Your task to perform on an android device: empty trash in google photos Image 0: 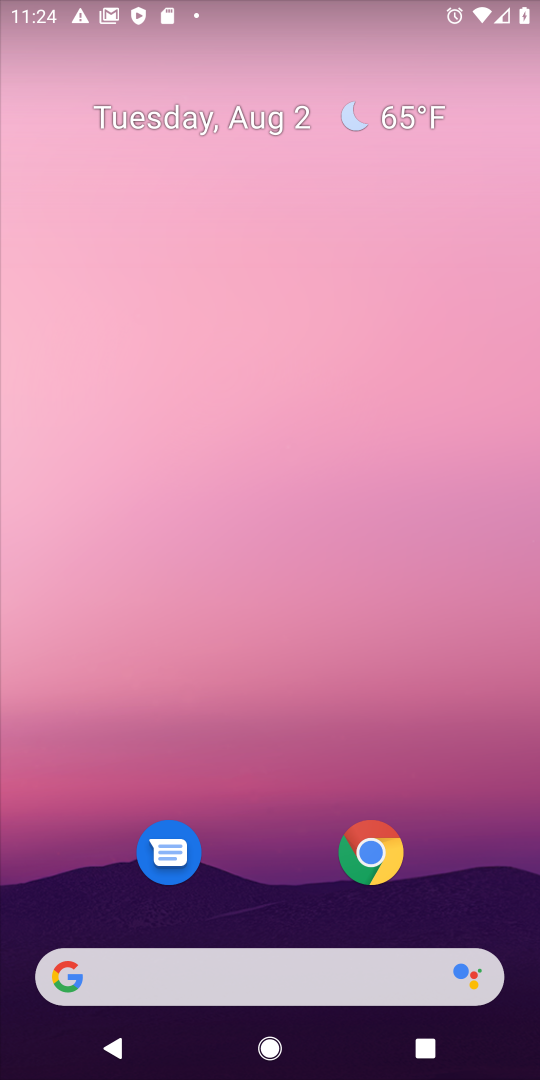
Step 0: drag from (392, 140) to (399, 18)
Your task to perform on an android device: empty trash in google photos Image 1: 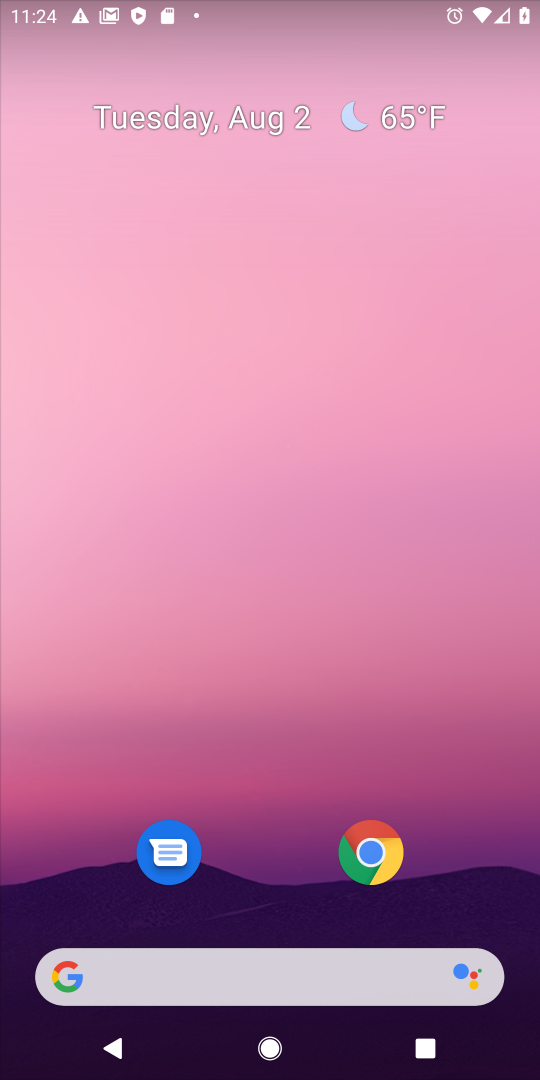
Step 1: drag from (85, 921) to (363, 93)
Your task to perform on an android device: empty trash in google photos Image 2: 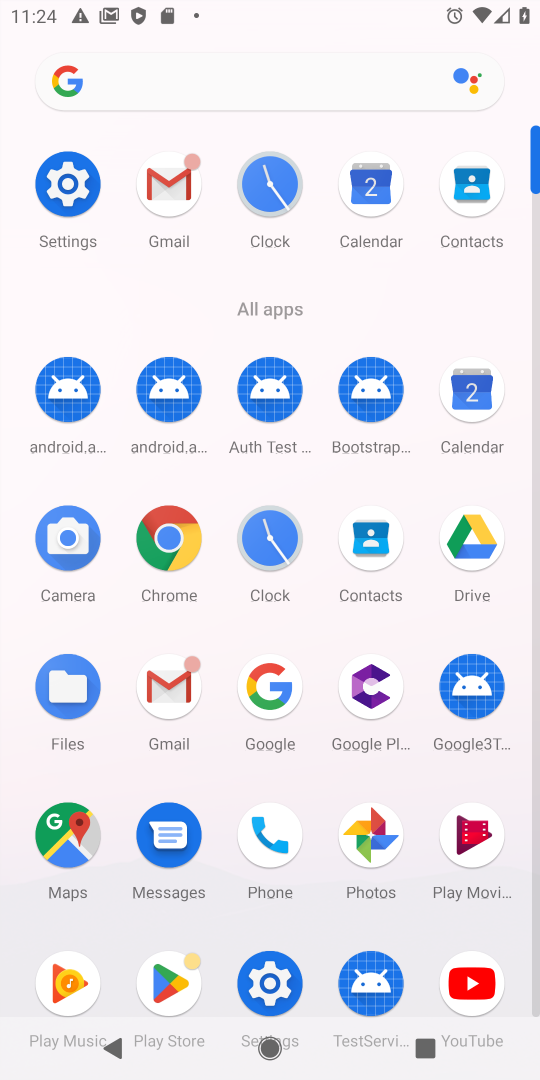
Step 2: click (366, 856)
Your task to perform on an android device: empty trash in google photos Image 3: 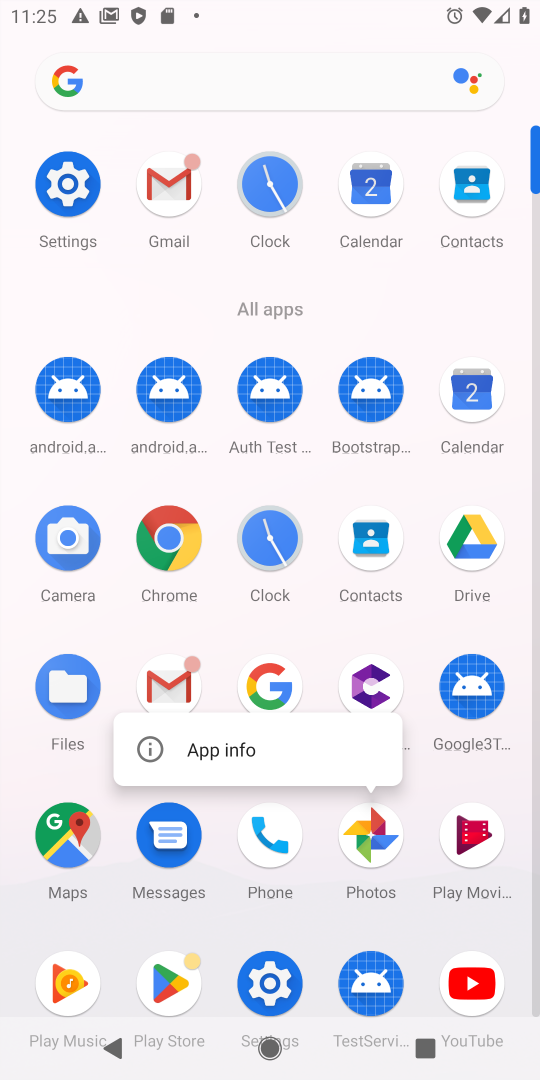
Step 3: click (379, 858)
Your task to perform on an android device: empty trash in google photos Image 4: 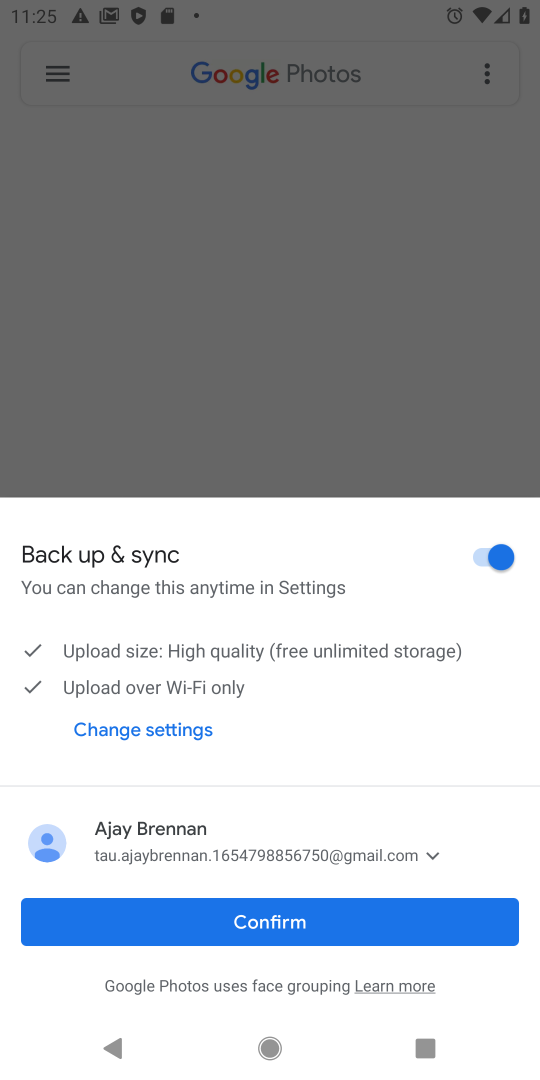
Step 4: click (238, 936)
Your task to perform on an android device: empty trash in google photos Image 5: 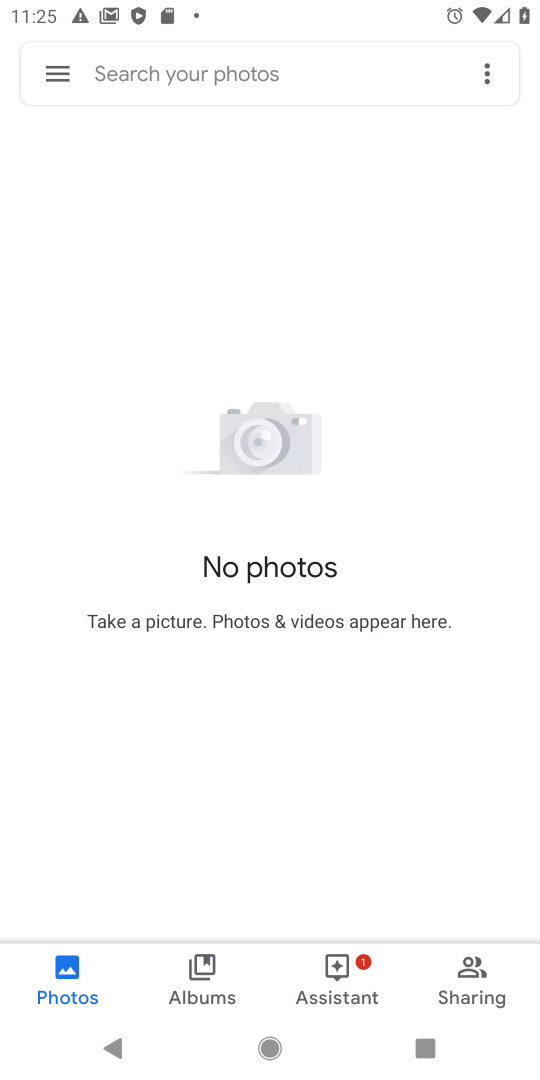
Step 5: click (53, 78)
Your task to perform on an android device: empty trash in google photos Image 6: 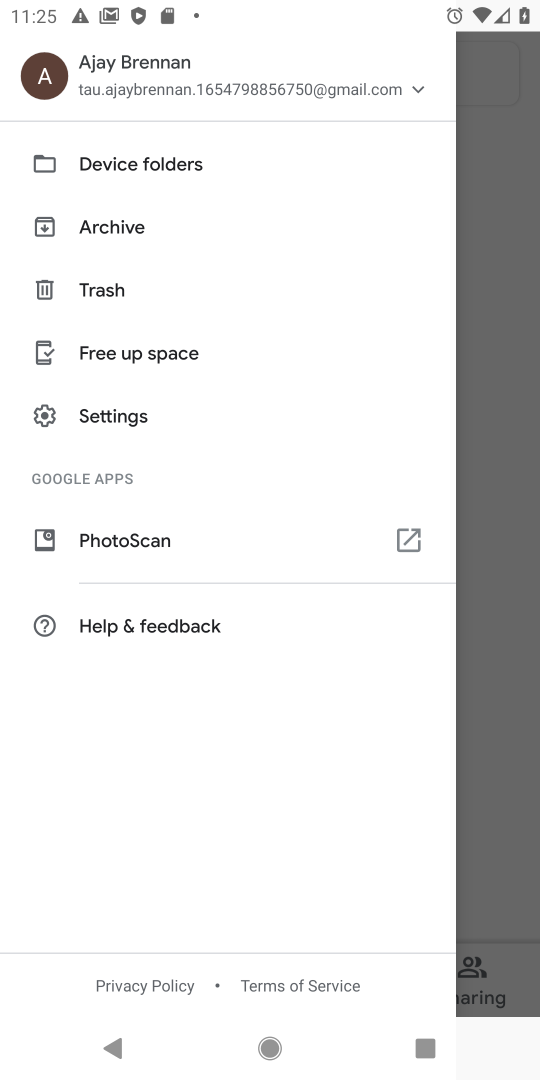
Step 6: click (90, 298)
Your task to perform on an android device: empty trash in google photos Image 7: 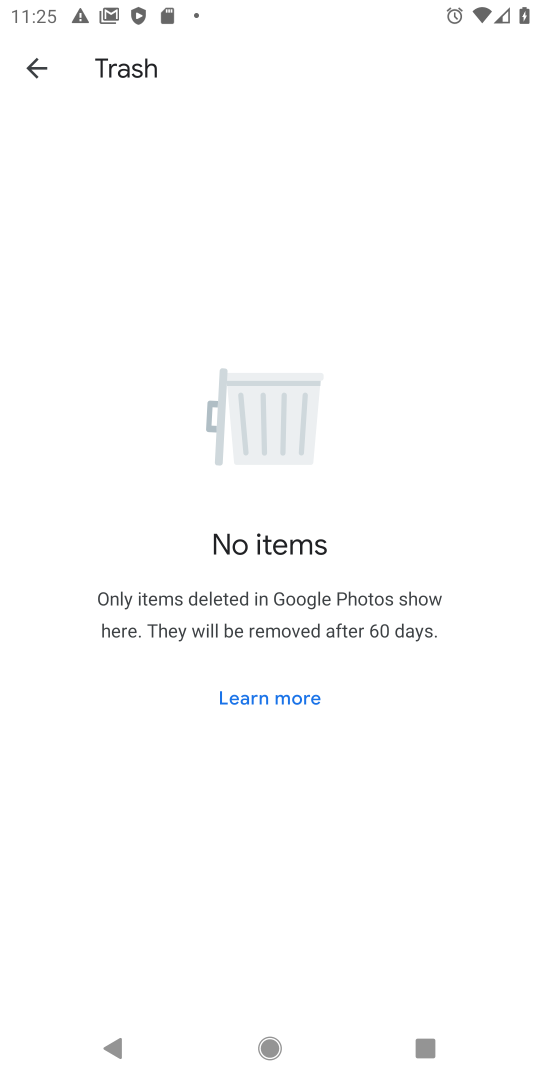
Step 7: task complete